Your task to perform on an android device: Clear the shopping cart on walmart.com. Add "dell alienware" to the cart on walmart.com Image 0: 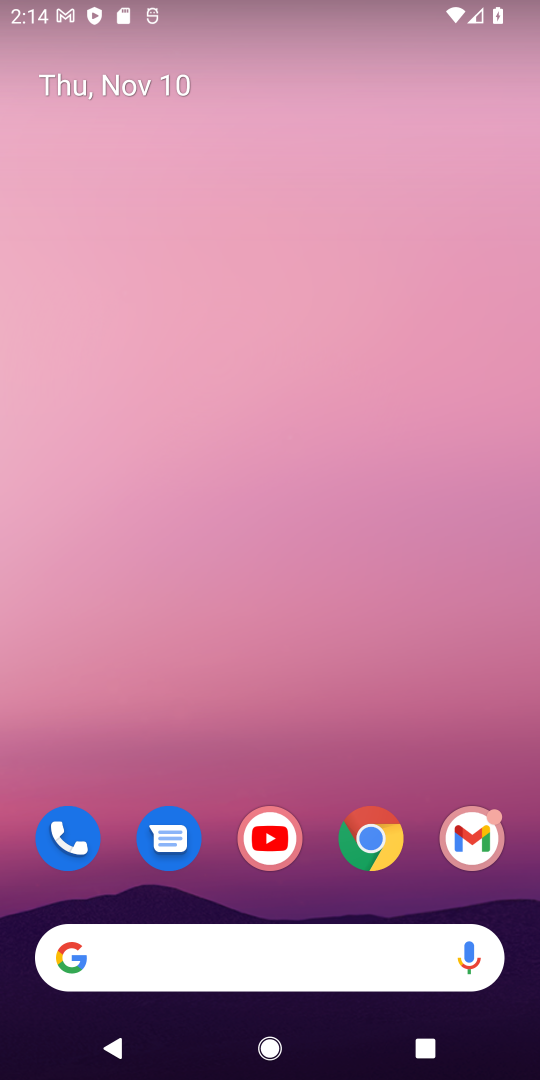
Step 0: click (374, 839)
Your task to perform on an android device: Clear the shopping cart on walmart.com. Add "dell alienware" to the cart on walmart.com Image 1: 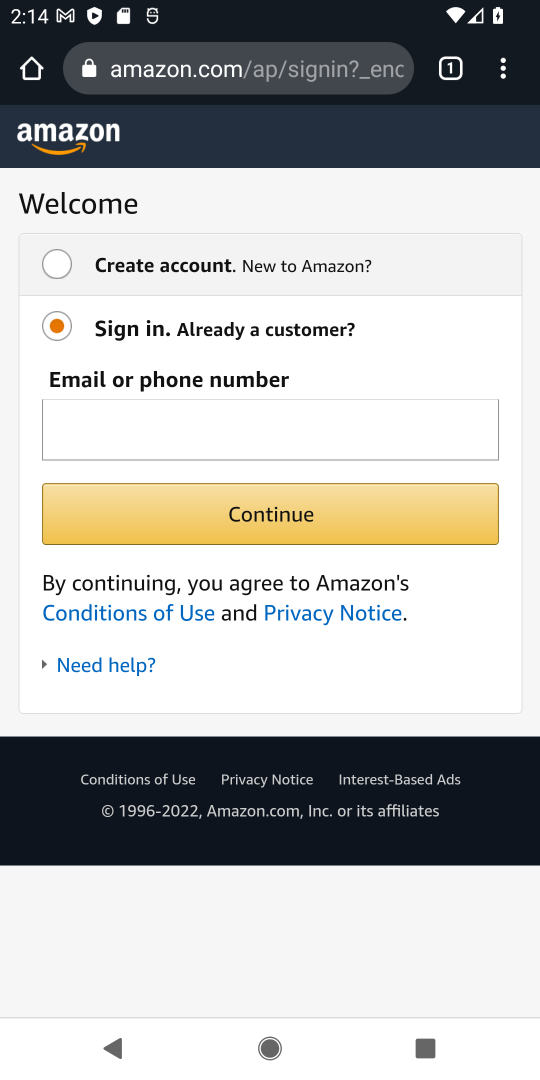
Step 1: click (457, 59)
Your task to perform on an android device: Clear the shopping cart on walmart.com. Add "dell alienware" to the cart on walmart.com Image 2: 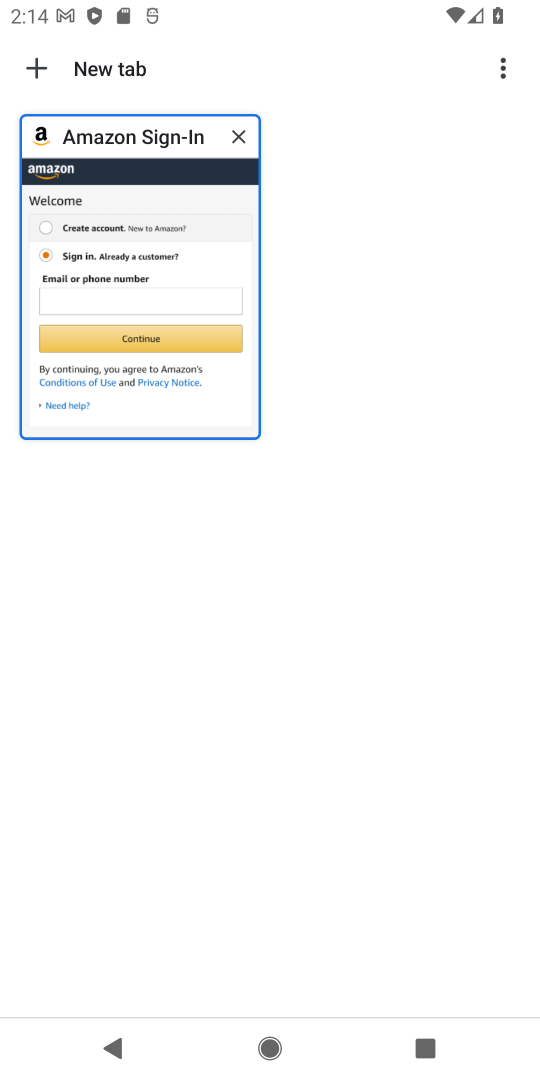
Step 2: click (36, 66)
Your task to perform on an android device: Clear the shopping cart on walmart.com. Add "dell alienware" to the cart on walmart.com Image 3: 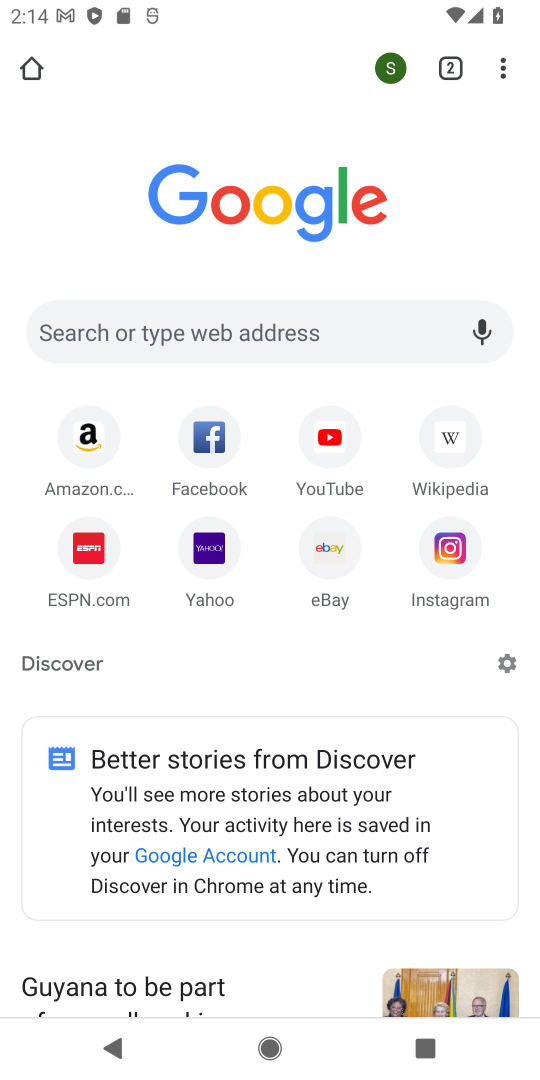
Step 3: click (243, 333)
Your task to perform on an android device: Clear the shopping cart on walmart.com. Add "dell alienware" to the cart on walmart.com Image 4: 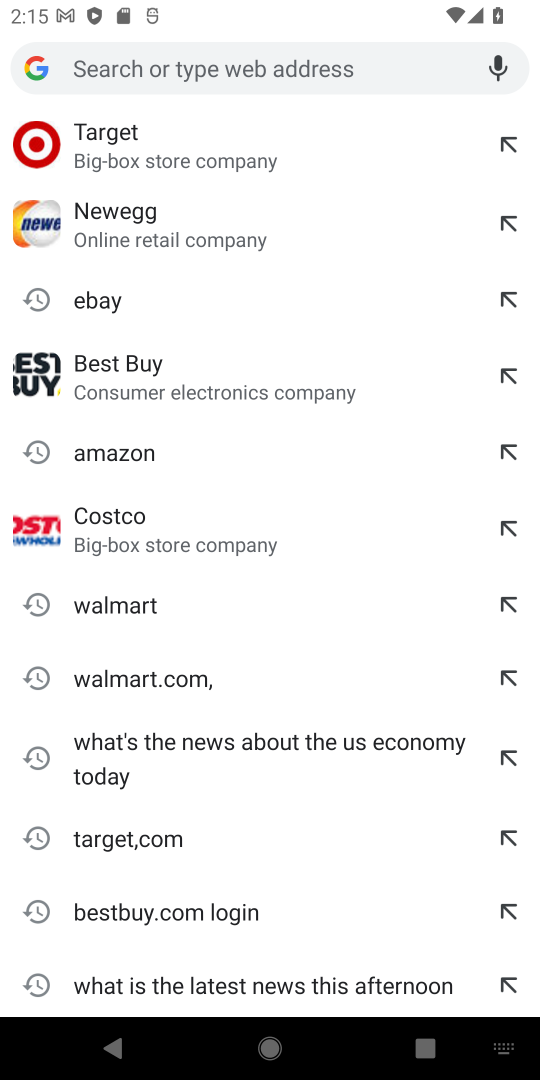
Step 4: click (123, 603)
Your task to perform on an android device: Clear the shopping cart on walmart.com. Add "dell alienware" to the cart on walmart.com Image 5: 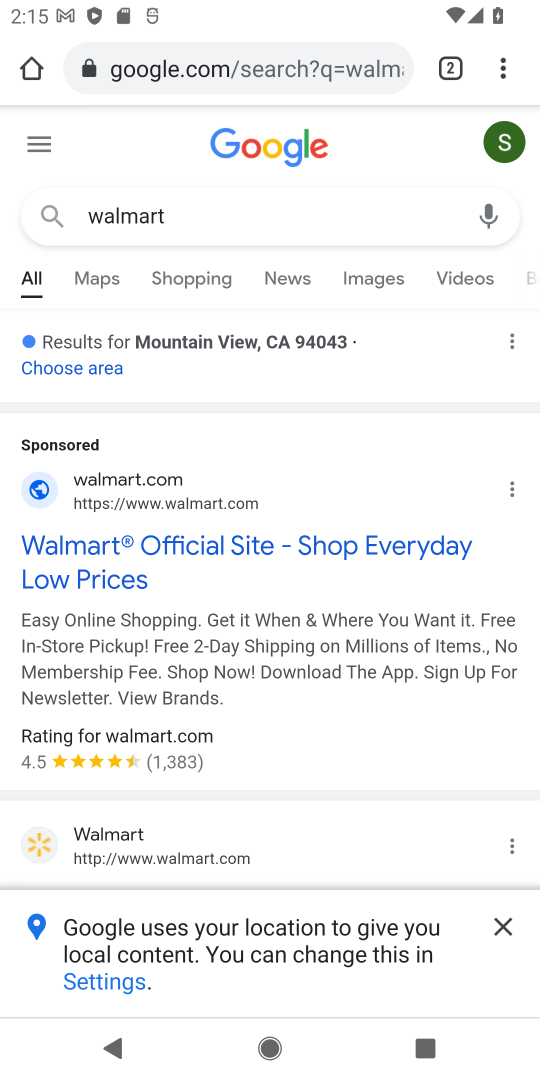
Step 5: drag from (249, 784) to (257, 135)
Your task to perform on an android device: Clear the shopping cart on walmart.com. Add "dell alienware" to the cart on walmart.com Image 6: 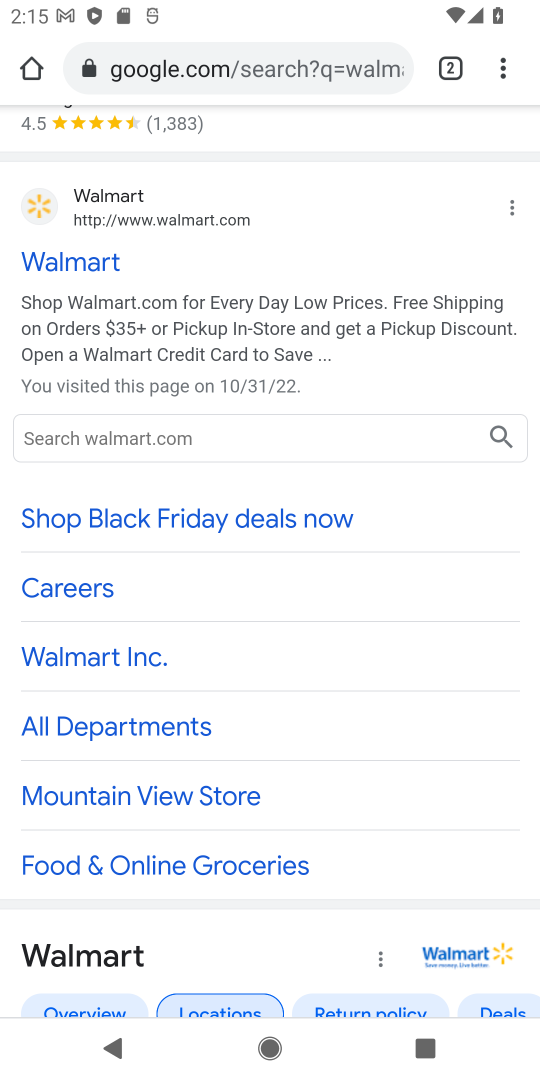
Step 6: click (133, 445)
Your task to perform on an android device: Clear the shopping cart on walmart.com. Add "dell alienware" to the cart on walmart.com Image 7: 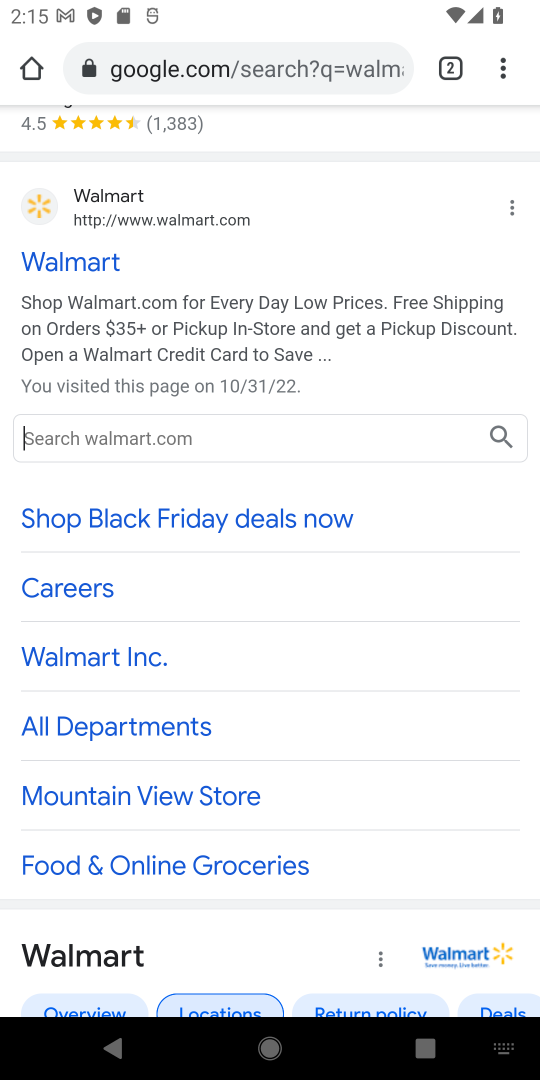
Step 7: type "dell alienware"
Your task to perform on an android device: Clear the shopping cart on walmart.com. Add "dell alienware" to the cart on walmart.com Image 8: 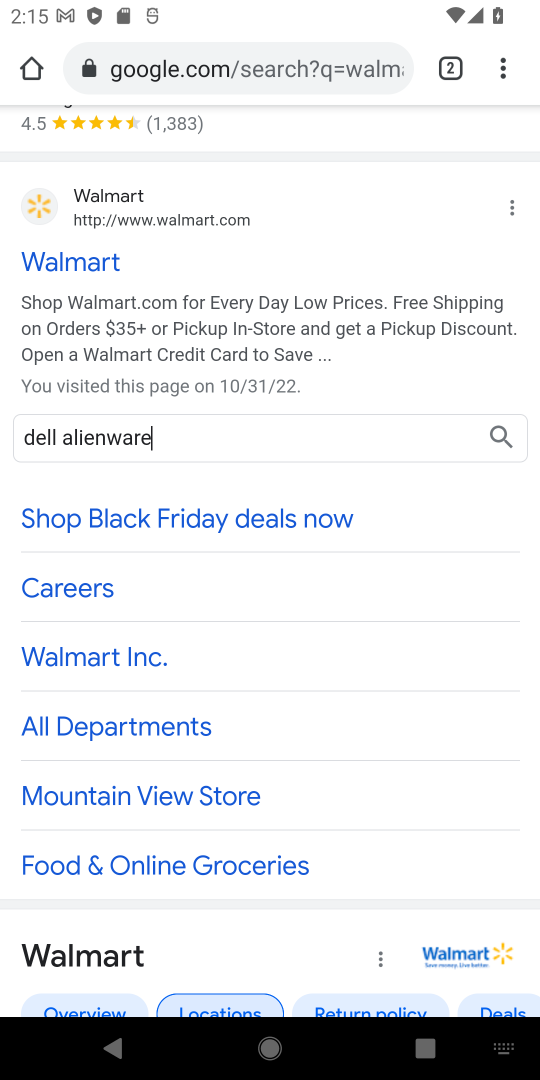
Step 8: click (504, 436)
Your task to perform on an android device: Clear the shopping cart on walmart.com. Add "dell alienware" to the cart on walmart.com Image 9: 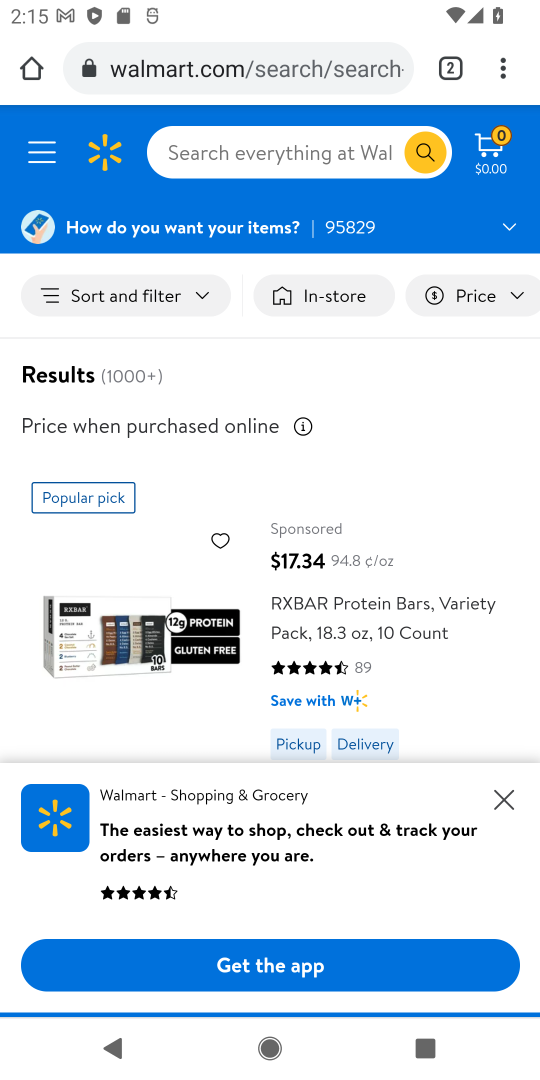
Step 9: drag from (398, 925) to (466, 316)
Your task to perform on an android device: Clear the shopping cart on walmart.com. Add "dell alienware" to the cart on walmart.com Image 10: 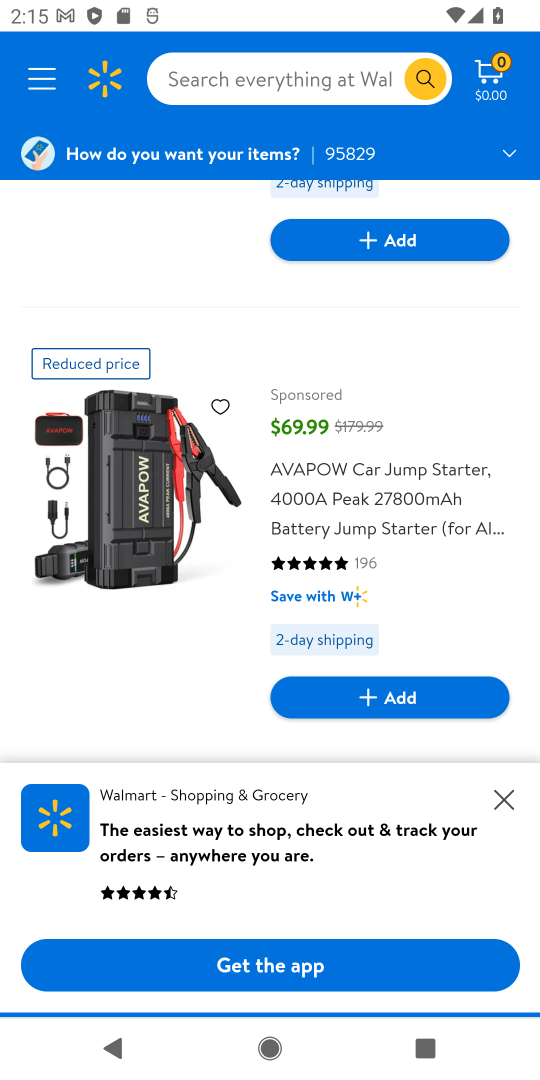
Step 10: click (503, 800)
Your task to perform on an android device: Clear the shopping cart on walmart.com. Add "dell alienware" to the cart on walmart.com Image 11: 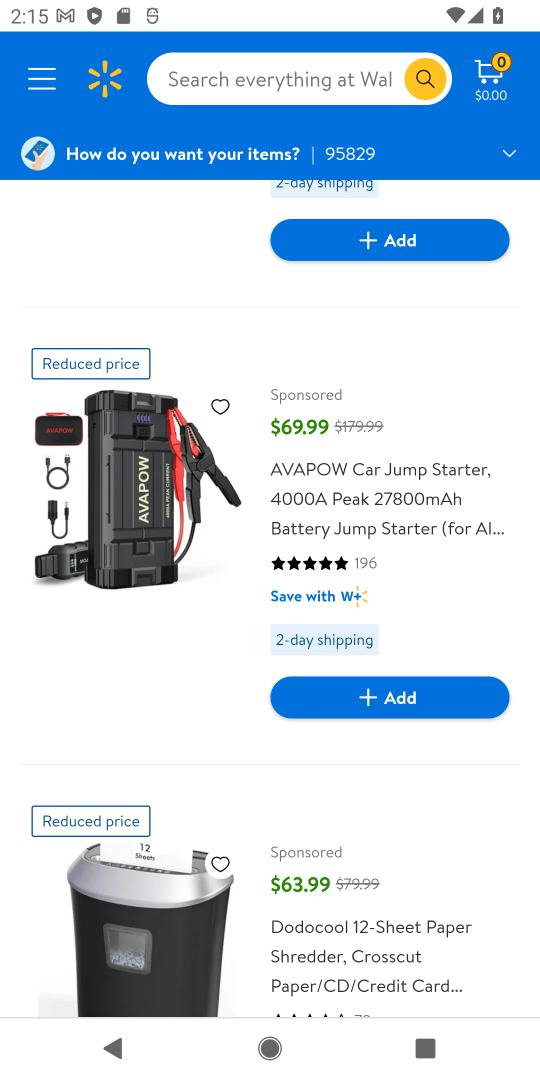
Step 11: task complete